Your task to perform on an android device: choose inbox layout in the gmail app Image 0: 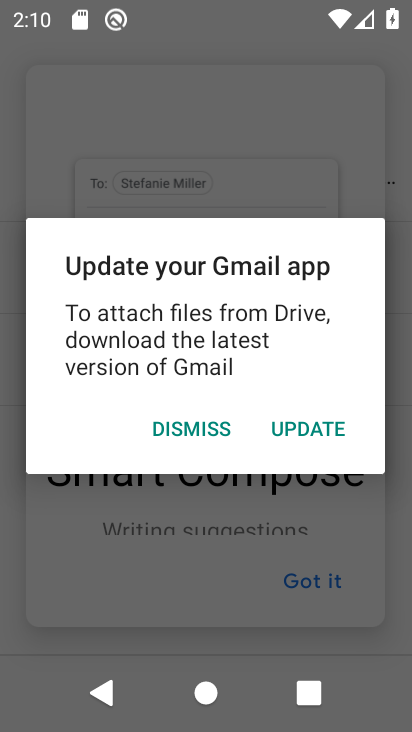
Step 0: press home button
Your task to perform on an android device: choose inbox layout in the gmail app Image 1: 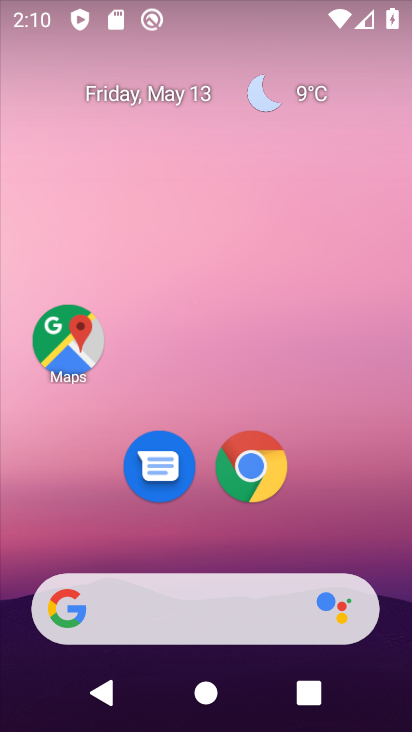
Step 1: drag from (221, 387) to (218, 162)
Your task to perform on an android device: choose inbox layout in the gmail app Image 2: 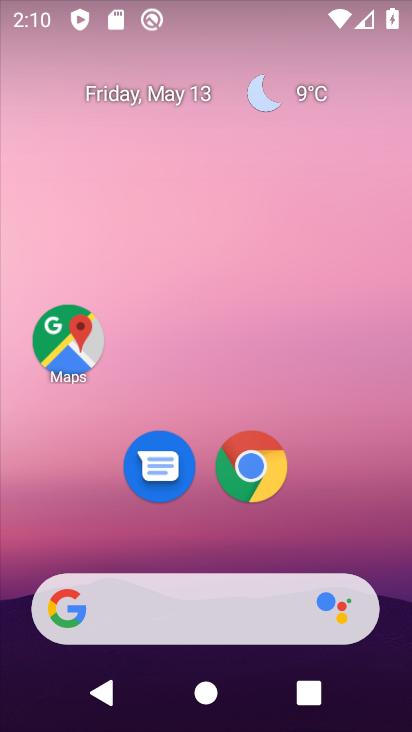
Step 2: drag from (247, 566) to (290, 137)
Your task to perform on an android device: choose inbox layout in the gmail app Image 3: 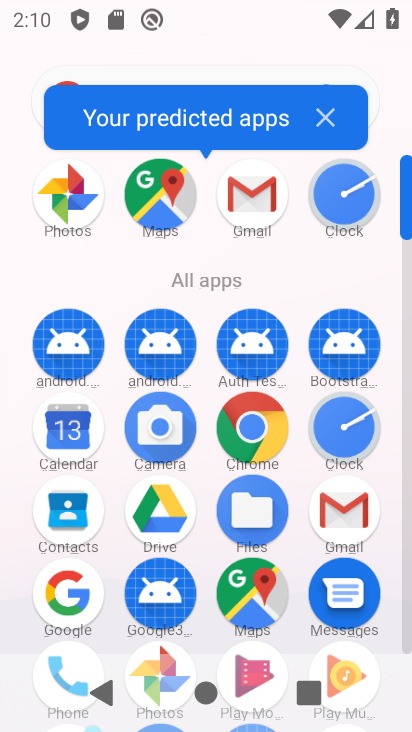
Step 3: click (267, 210)
Your task to perform on an android device: choose inbox layout in the gmail app Image 4: 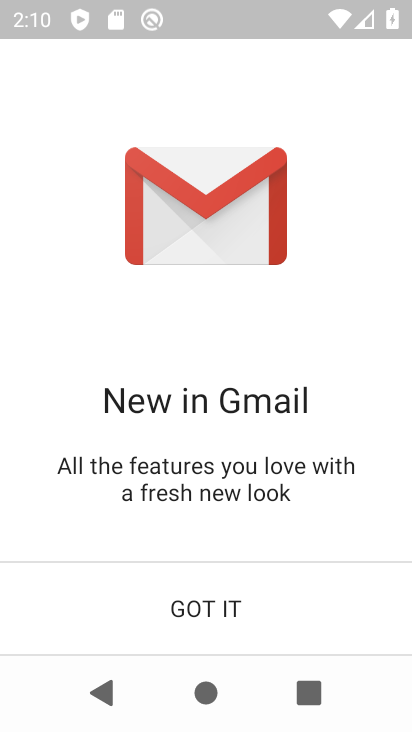
Step 4: click (237, 616)
Your task to perform on an android device: choose inbox layout in the gmail app Image 5: 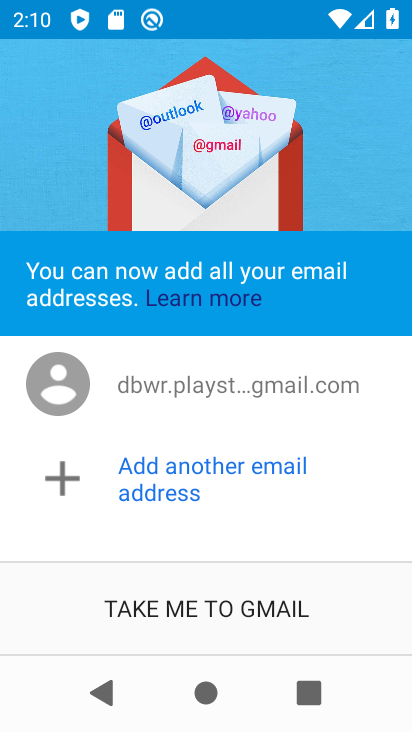
Step 5: click (237, 616)
Your task to perform on an android device: choose inbox layout in the gmail app Image 6: 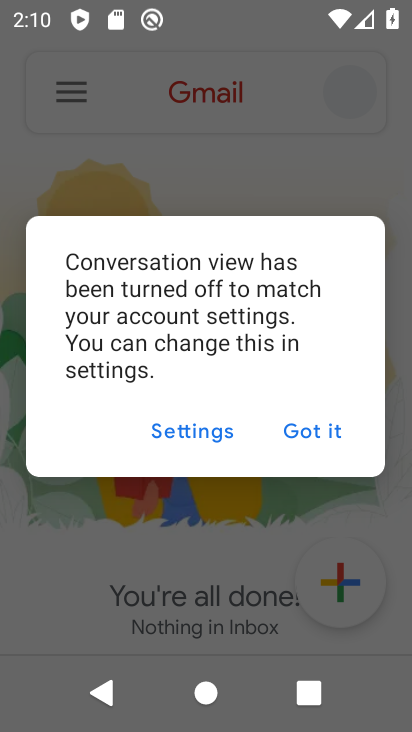
Step 6: click (313, 427)
Your task to perform on an android device: choose inbox layout in the gmail app Image 7: 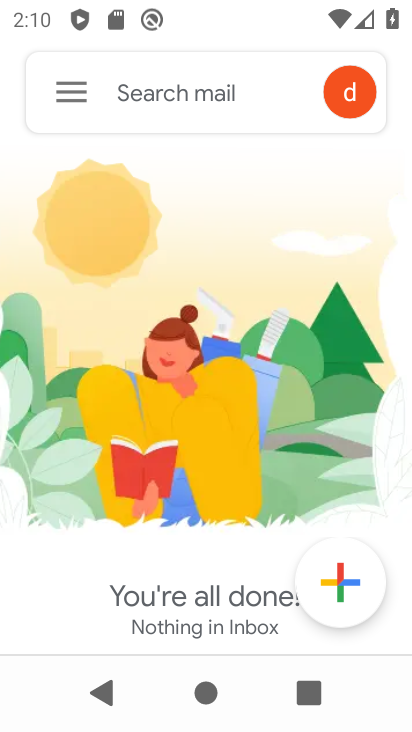
Step 7: click (60, 90)
Your task to perform on an android device: choose inbox layout in the gmail app Image 8: 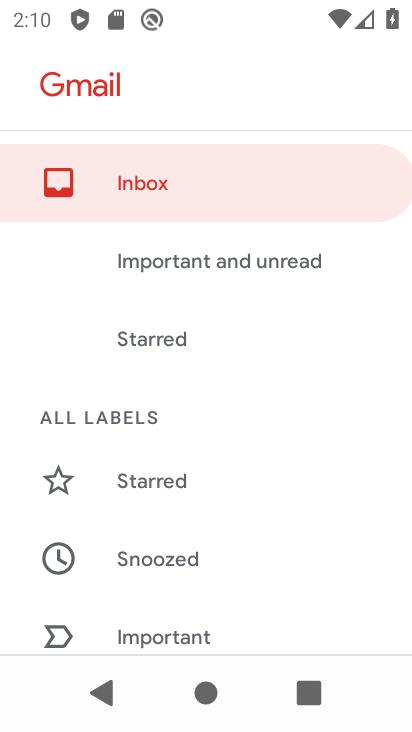
Step 8: drag from (222, 560) to (249, 213)
Your task to perform on an android device: choose inbox layout in the gmail app Image 9: 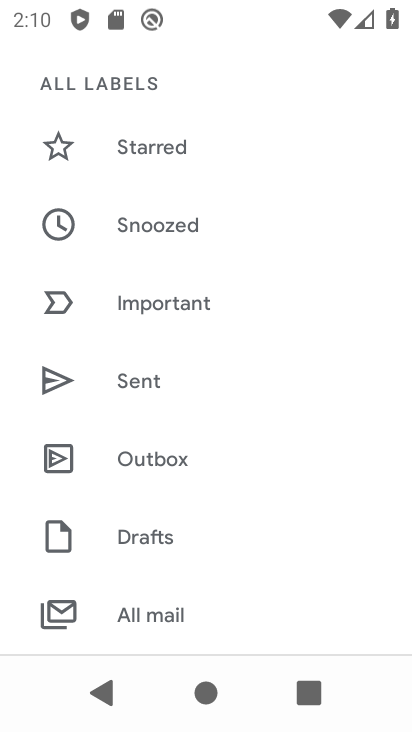
Step 9: drag from (241, 544) to (261, 200)
Your task to perform on an android device: choose inbox layout in the gmail app Image 10: 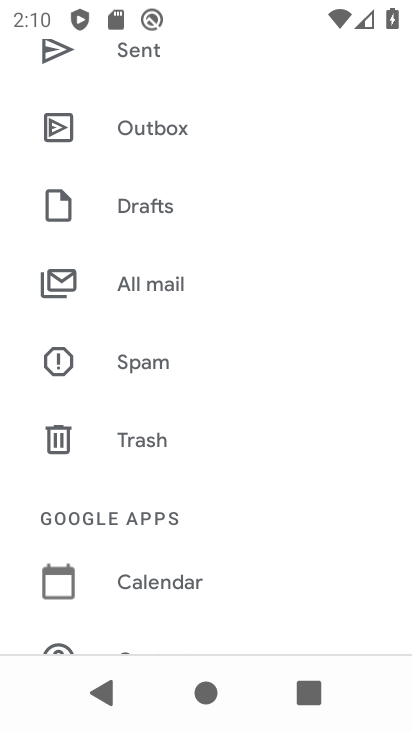
Step 10: drag from (200, 576) to (246, 239)
Your task to perform on an android device: choose inbox layout in the gmail app Image 11: 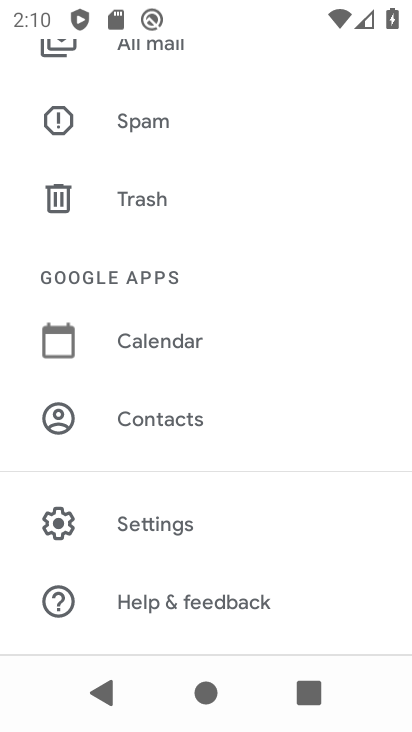
Step 11: click (200, 505)
Your task to perform on an android device: choose inbox layout in the gmail app Image 12: 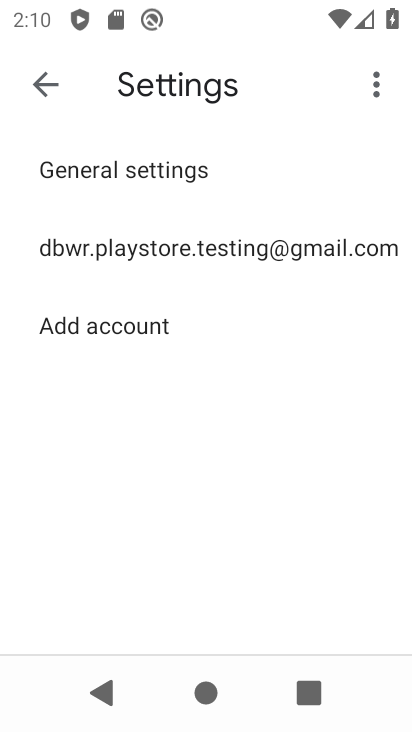
Step 12: click (209, 248)
Your task to perform on an android device: choose inbox layout in the gmail app Image 13: 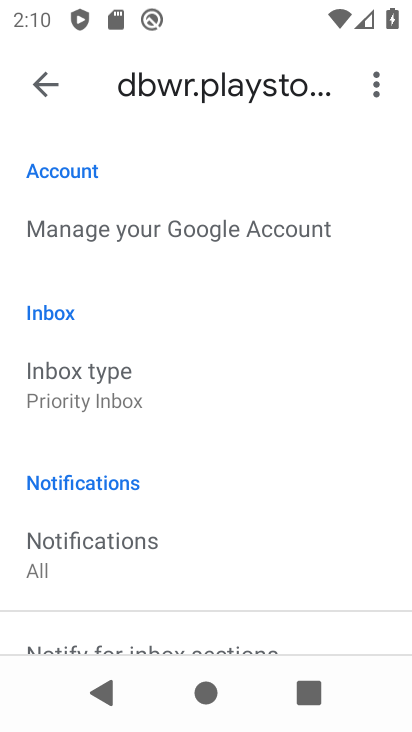
Step 13: click (175, 404)
Your task to perform on an android device: choose inbox layout in the gmail app Image 14: 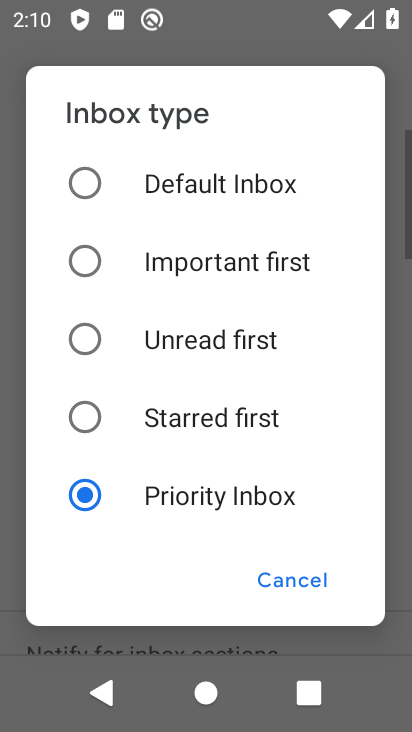
Step 14: click (196, 209)
Your task to perform on an android device: choose inbox layout in the gmail app Image 15: 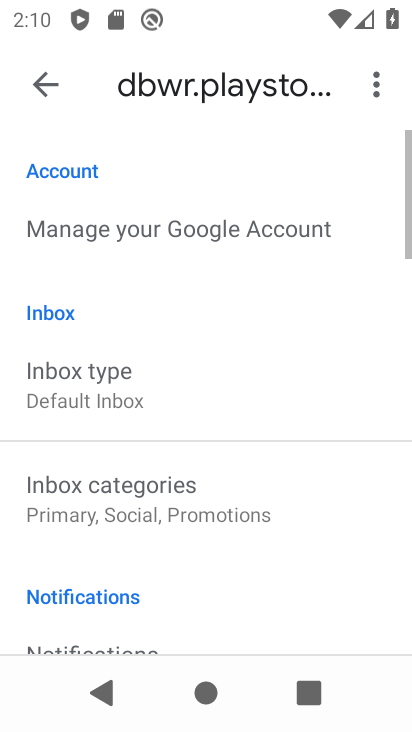
Step 15: task complete